Your task to perform on an android device: add a contact in the contacts app Image 0: 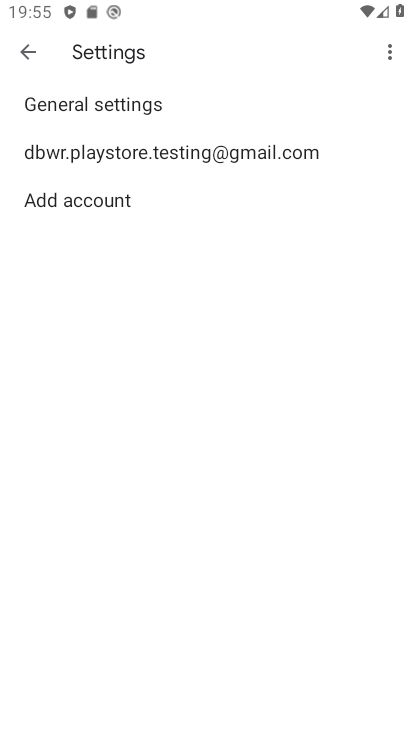
Step 0: press back button
Your task to perform on an android device: add a contact in the contacts app Image 1: 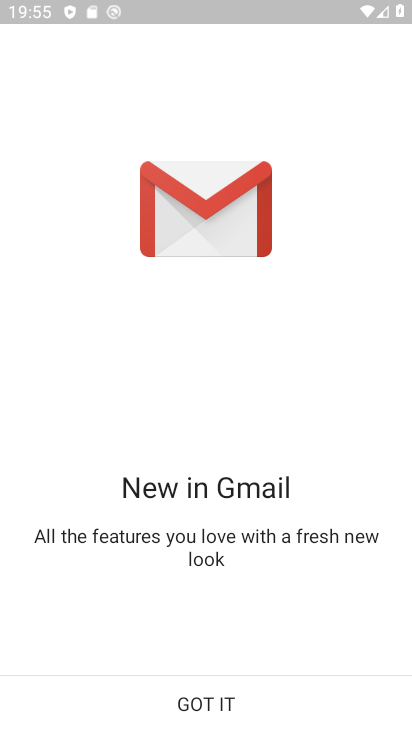
Step 1: press back button
Your task to perform on an android device: add a contact in the contacts app Image 2: 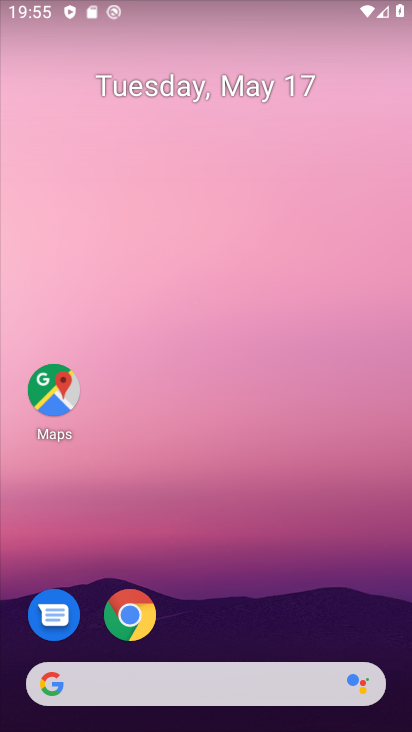
Step 2: drag from (253, 618) to (347, 20)
Your task to perform on an android device: add a contact in the contacts app Image 3: 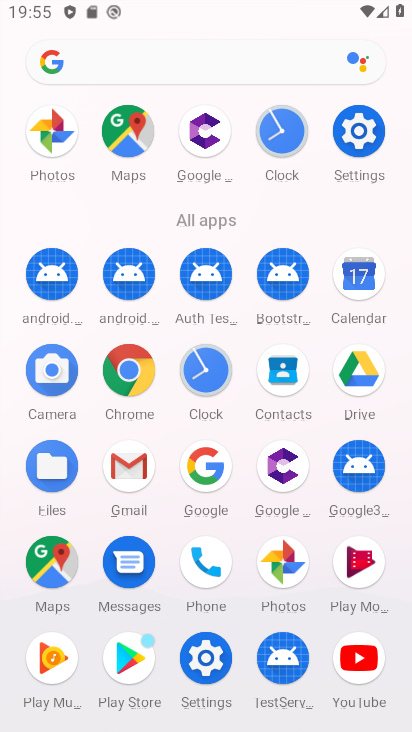
Step 3: click (267, 363)
Your task to perform on an android device: add a contact in the contacts app Image 4: 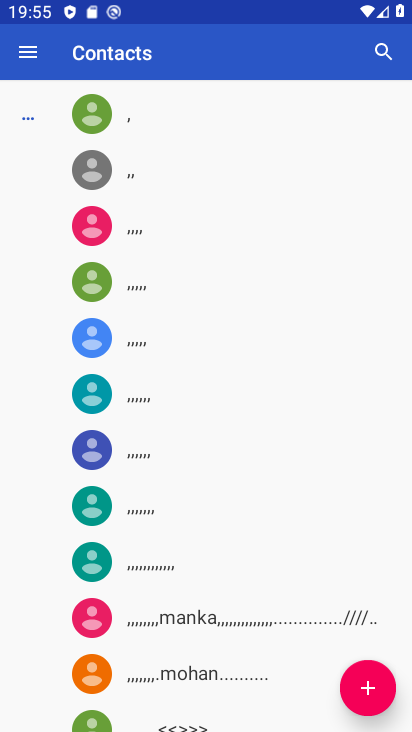
Step 4: click (367, 668)
Your task to perform on an android device: add a contact in the contacts app Image 5: 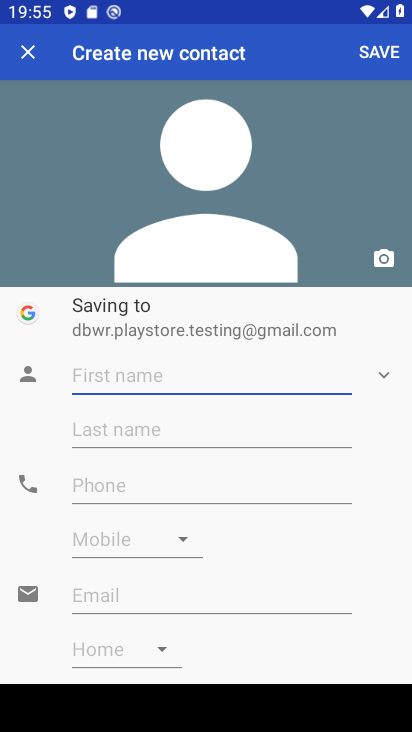
Step 5: type "gtthgth"
Your task to perform on an android device: add a contact in the contacts app Image 6: 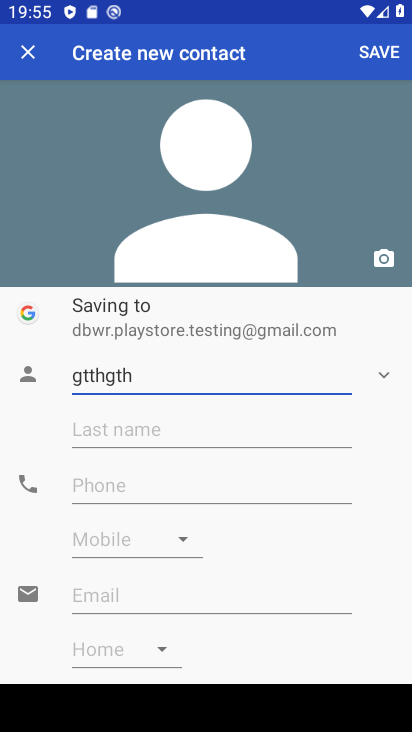
Step 6: click (107, 481)
Your task to perform on an android device: add a contact in the contacts app Image 7: 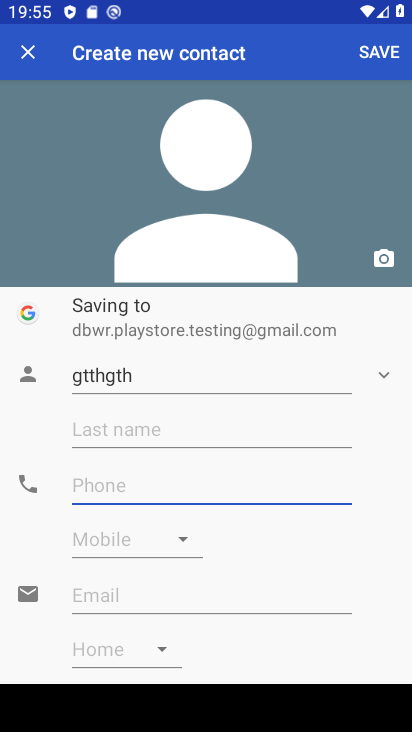
Step 7: type "6767"
Your task to perform on an android device: add a contact in the contacts app Image 8: 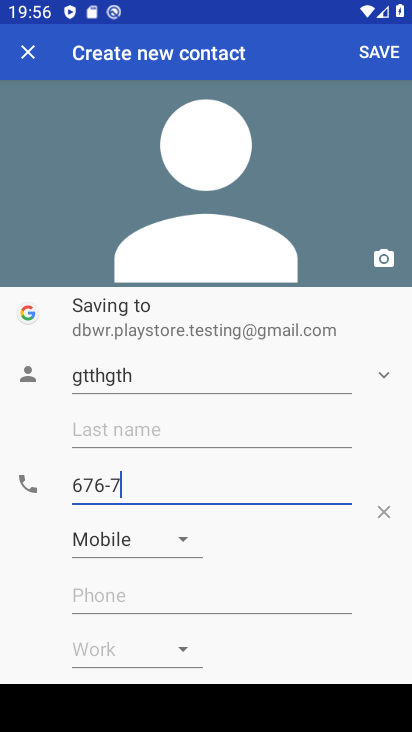
Step 8: click (384, 58)
Your task to perform on an android device: add a contact in the contacts app Image 9: 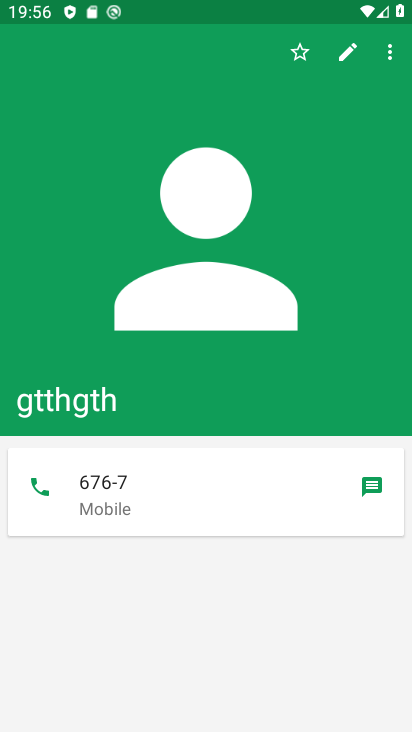
Step 9: task complete